Your task to perform on an android device: Turn on the flashlight Image 0: 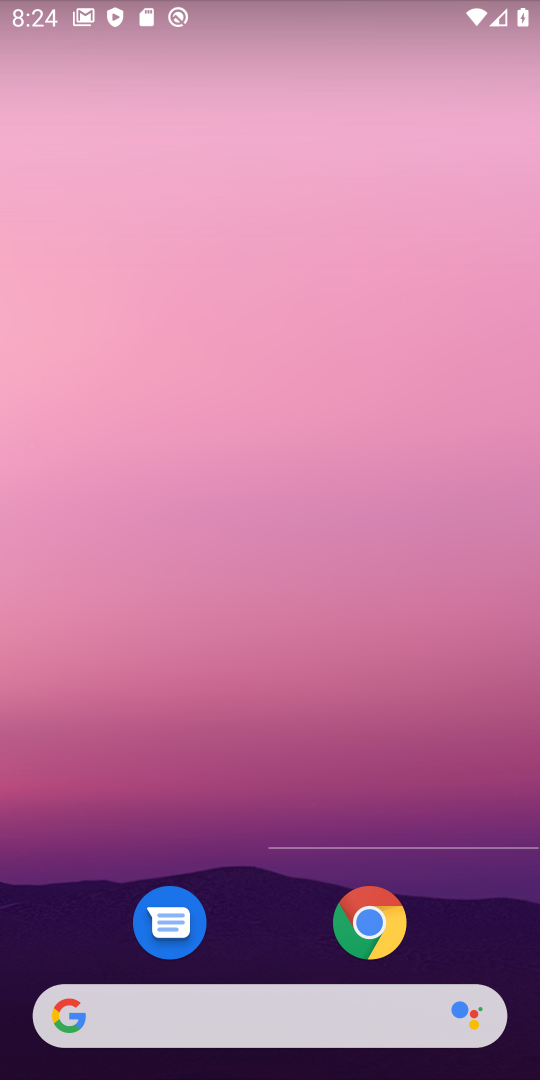
Step 0: task impossible